Your task to perform on an android device: check battery use Image 0: 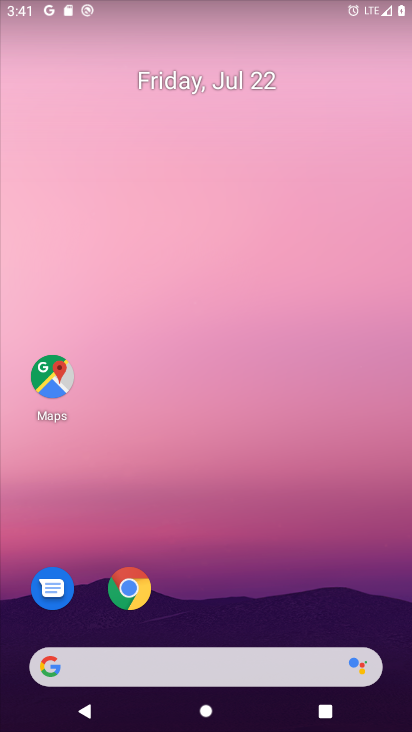
Step 0: press home button
Your task to perform on an android device: check battery use Image 1: 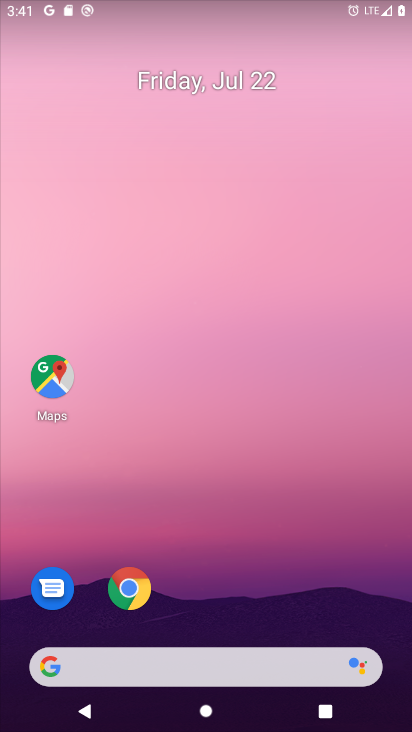
Step 1: drag from (356, 599) to (376, 335)
Your task to perform on an android device: check battery use Image 2: 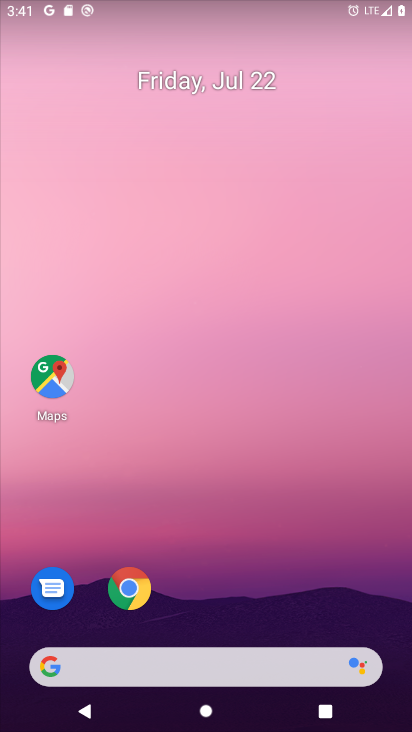
Step 2: drag from (233, 583) to (328, 25)
Your task to perform on an android device: check battery use Image 3: 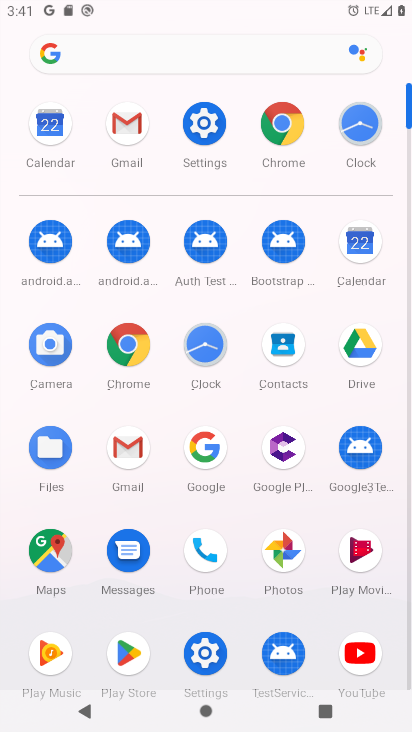
Step 3: click (199, 126)
Your task to perform on an android device: check battery use Image 4: 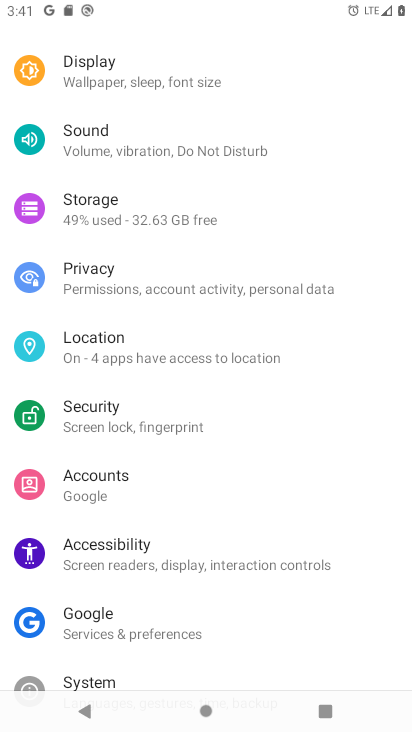
Step 4: drag from (151, 146) to (109, 614)
Your task to perform on an android device: check battery use Image 5: 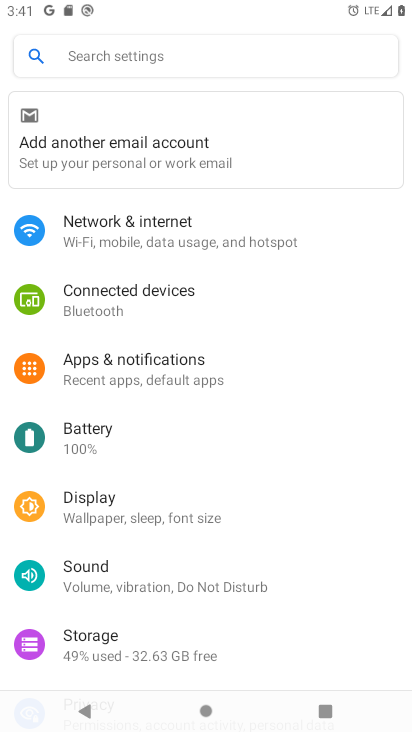
Step 5: click (71, 419)
Your task to perform on an android device: check battery use Image 6: 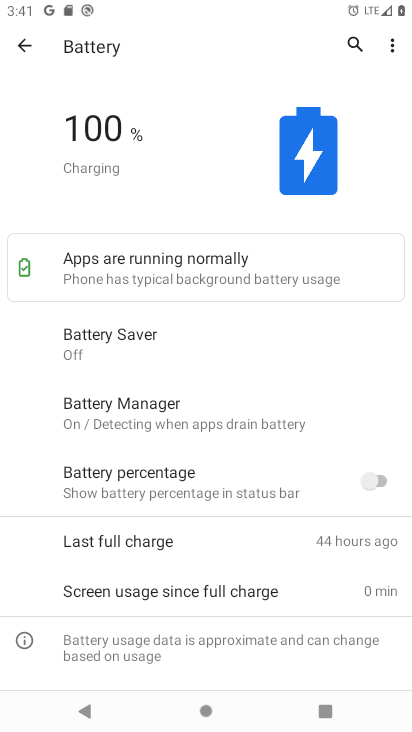
Step 6: task complete